Your task to perform on an android device: What's the weather going to be tomorrow? Image 0: 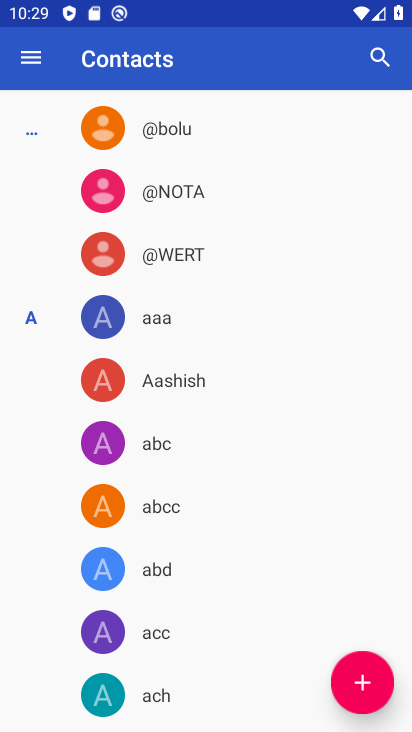
Step 0: press home button
Your task to perform on an android device: What's the weather going to be tomorrow? Image 1: 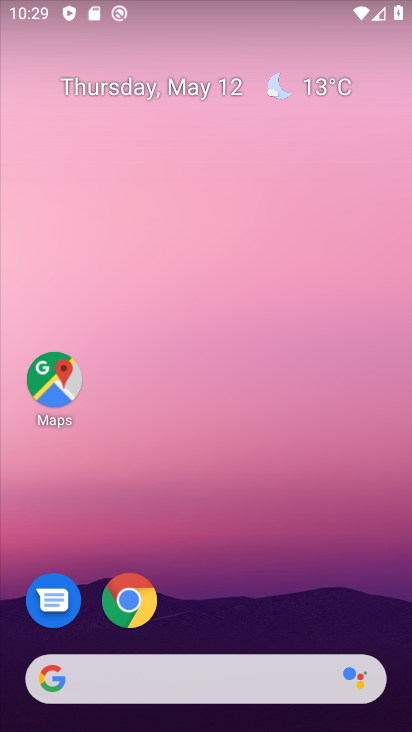
Step 1: click (316, 84)
Your task to perform on an android device: What's the weather going to be tomorrow? Image 2: 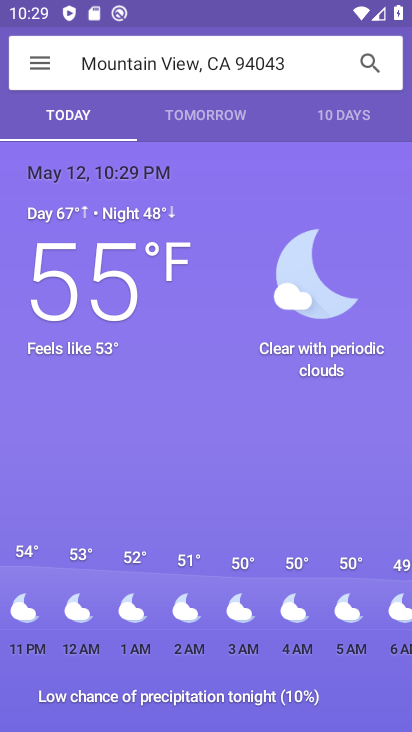
Step 2: click (203, 104)
Your task to perform on an android device: What's the weather going to be tomorrow? Image 3: 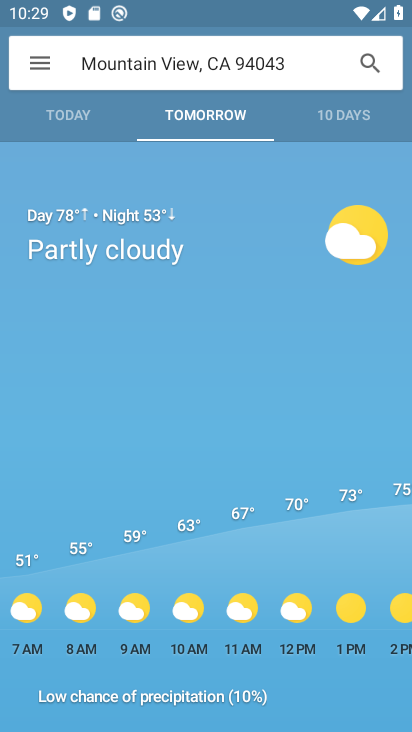
Step 3: task complete